Your task to perform on an android device: Open Chrome and go to settings Image 0: 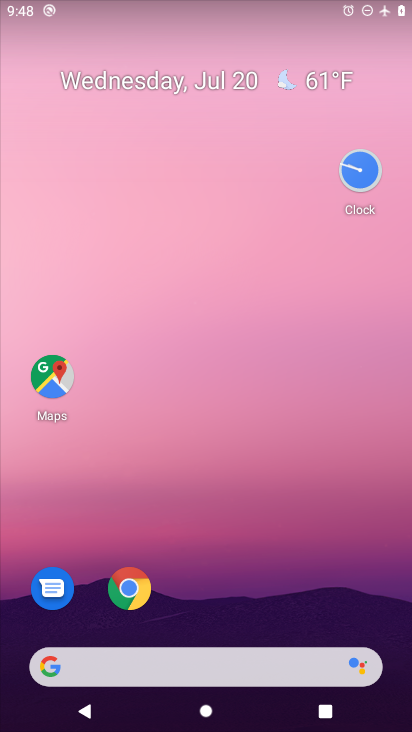
Step 0: click (118, 580)
Your task to perform on an android device: Open Chrome and go to settings Image 1: 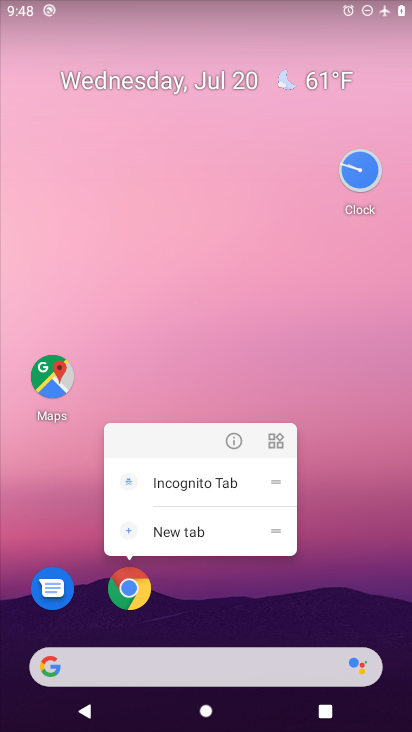
Step 1: click (122, 596)
Your task to perform on an android device: Open Chrome and go to settings Image 2: 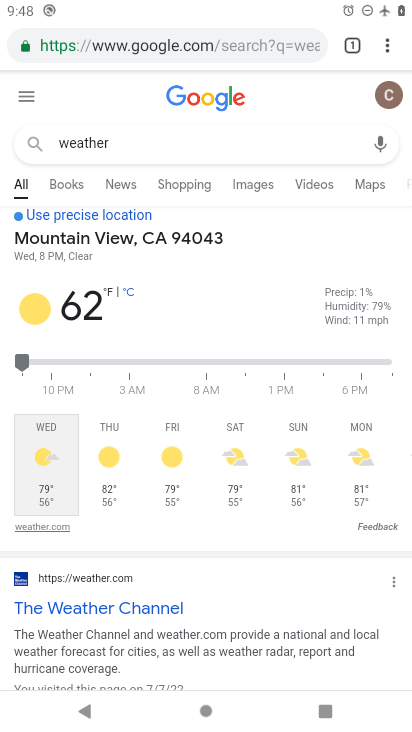
Step 2: click (392, 44)
Your task to perform on an android device: Open Chrome and go to settings Image 3: 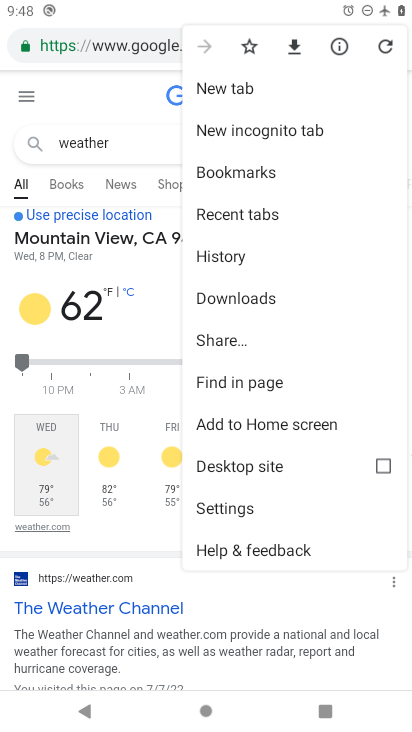
Step 3: click (207, 508)
Your task to perform on an android device: Open Chrome and go to settings Image 4: 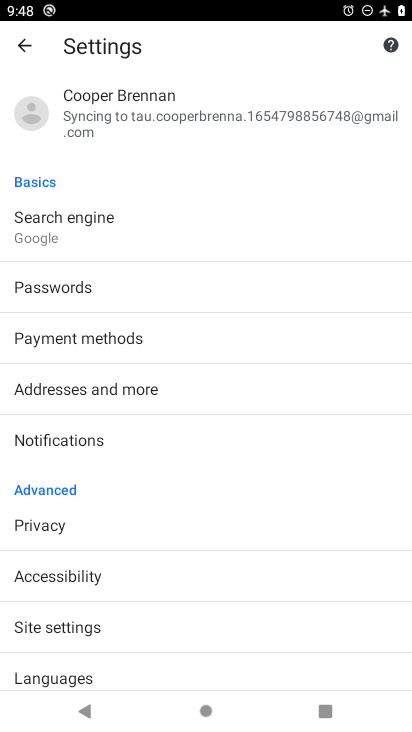
Step 4: task complete